Your task to perform on an android device: Open Google Chrome and open the bookmarks view Image 0: 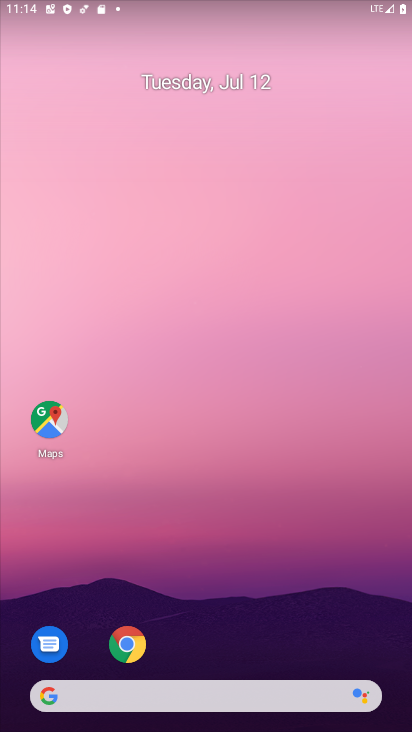
Step 0: click (127, 647)
Your task to perform on an android device: Open Google Chrome and open the bookmarks view Image 1: 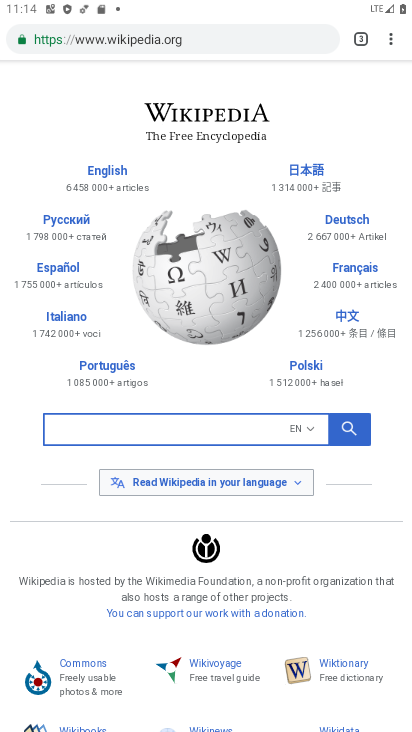
Step 1: click (388, 36)
Your task to perform on an android device: Open Google Chrome and open the bookmarks view Image 2: 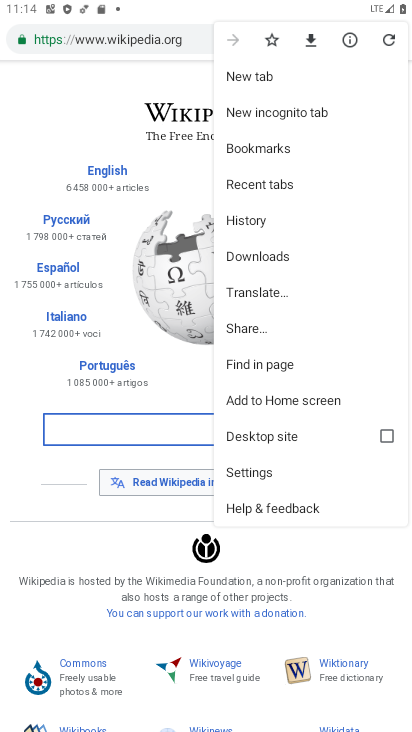
Step 2: click (259, 146)
Your task to perform on an android device: Open Google Chrome and open the bookmarks view Image 3: 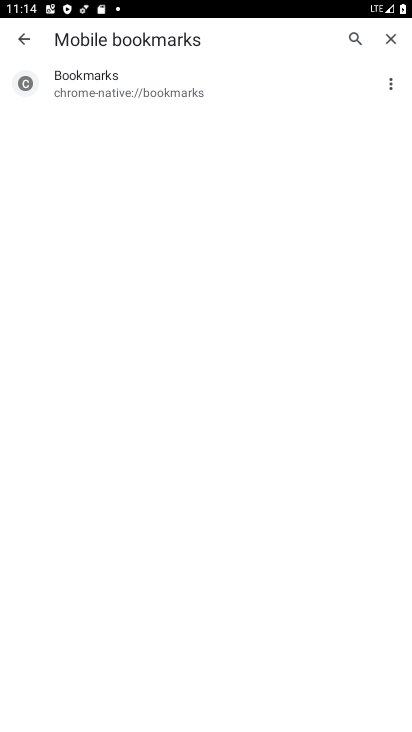
Step 3: task complete